Your task to perform on an android device: set the timer Image 0: 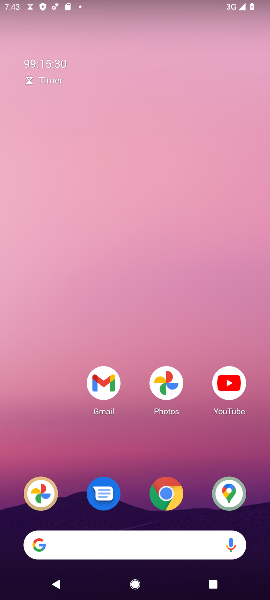
Step 0: drag from (138, 508) to (163, 192)
Your task to perform on an android device: set the timer Image 1: 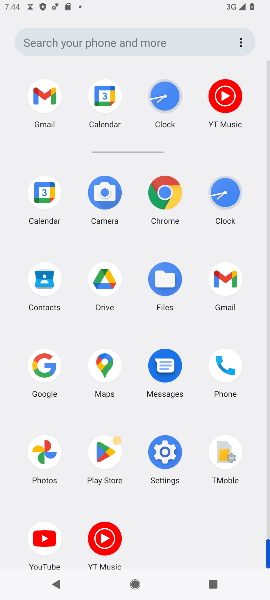
Step 1: click (229, 203)
Your task to perform on an android device: set the timer Image 2: 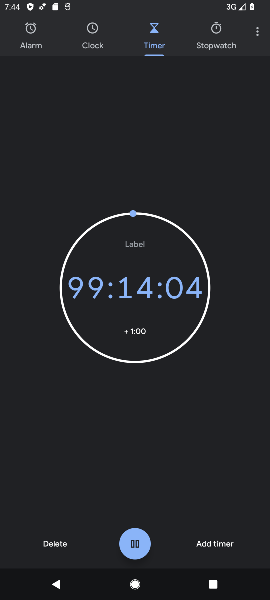
Step 2: task complete